Your task to perform on an android device: turn on improve location accuracy Image 0: 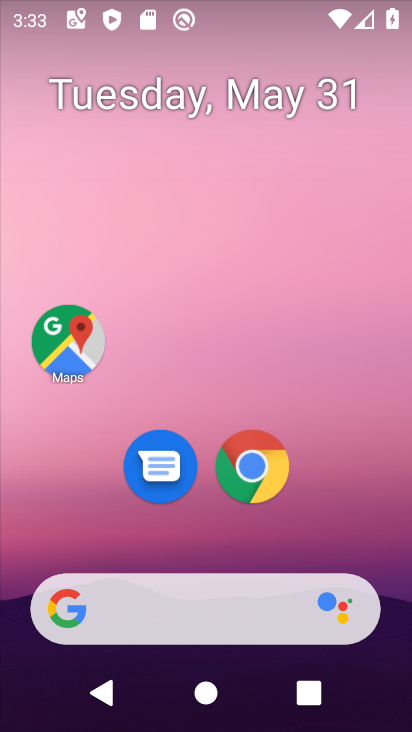
Step 0: drag from (196, 545) to (256, 69)
Your task to perform on an android device: turn on improve location accuracy Image 1: 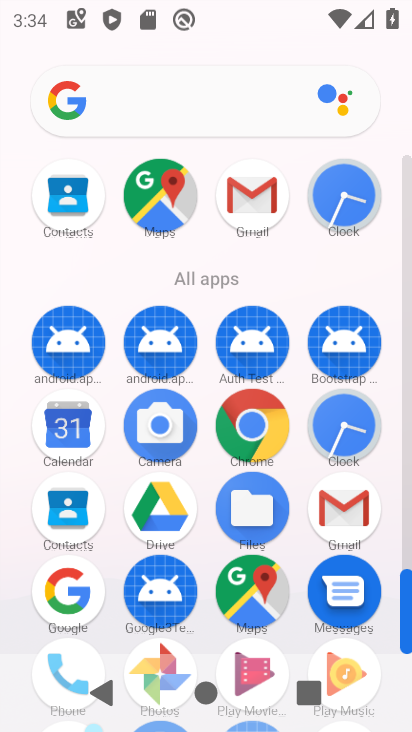
Step 1: drag from (195, 537) to (241, 77)
Your task to perform on an android device: turn on improve location accuracy Image 2: 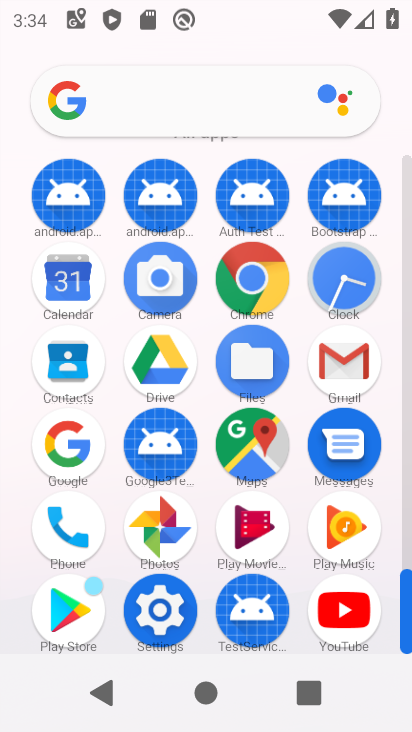
Step 2: click (137, 614)
Your task to perform on an android device: turn on improve location accuracy Image 3: 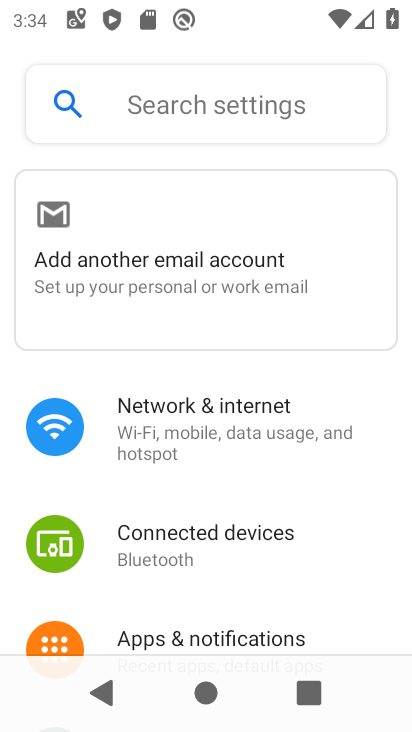
Step 3: drag from (176, 601) to (276, 21)
Your task to perform on an android device: turn on improve location accuracy Image 4: 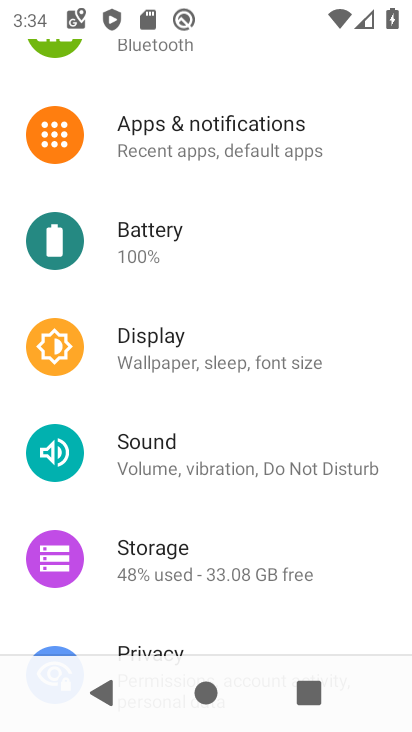
Step 4: drag from (212, 581) to (271, 247)
Your task to perform on an android device: turn on improve location accuracy Image 5: 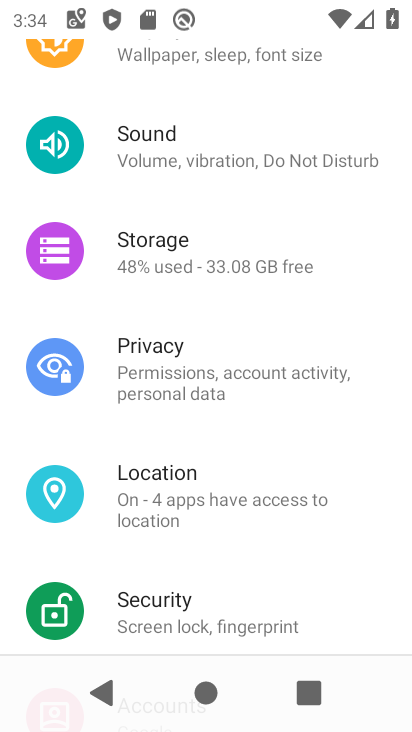
Step 5: click (154, 474)
Your task to perform on an android device: turn on improve location accuracy Image 6: 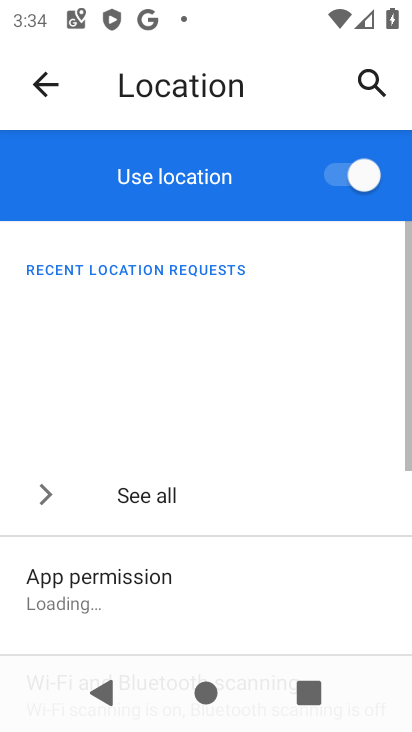
Step 6: drag from (167, 545) to (234, 62)
Your task to perform on an android device: turn on improve location accuracy Image 7: 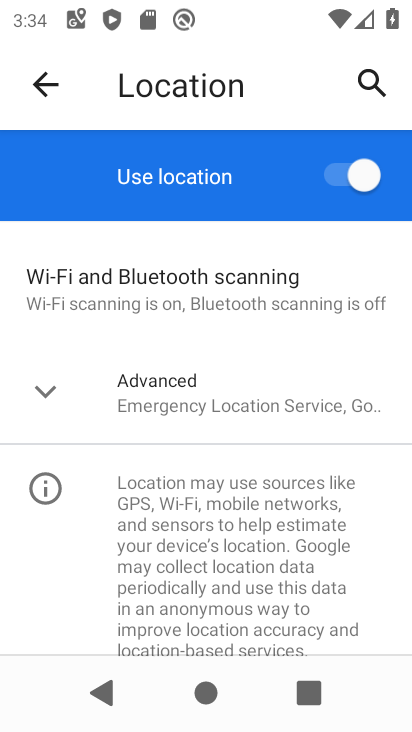
Step 7: click (236, 400)
Your task to perform on an android device: turn on improve location accuracy Image 8: 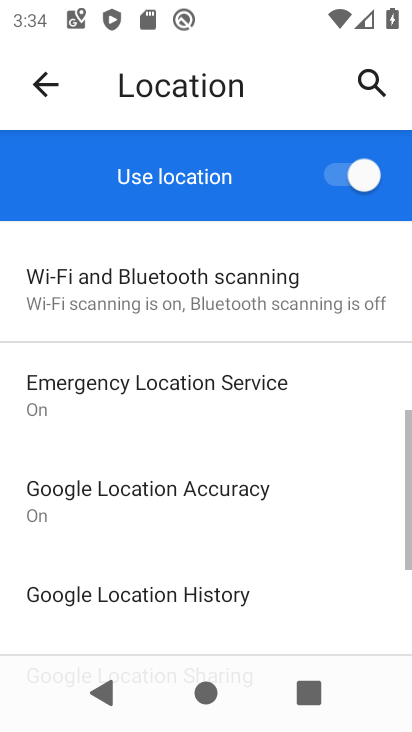
Step 8: click (190, 496)
Your task to perform on an android device: turn on improve location accuracy Image 9: 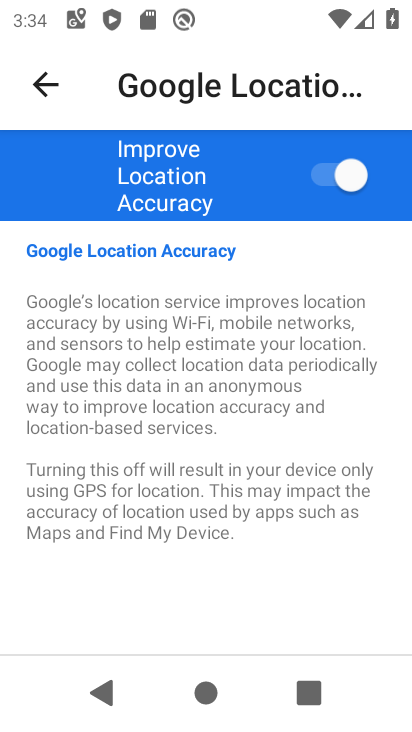
Step 9: task complete